Your task to perform on an android device: see sites visited before in the chrome app Image 0: 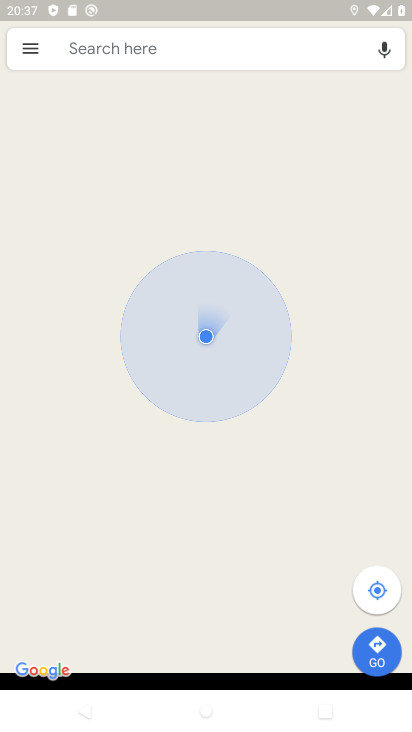
Step 0: press home button
Your task to perform on an android device: see sites visited before in the chrome app Image 1: 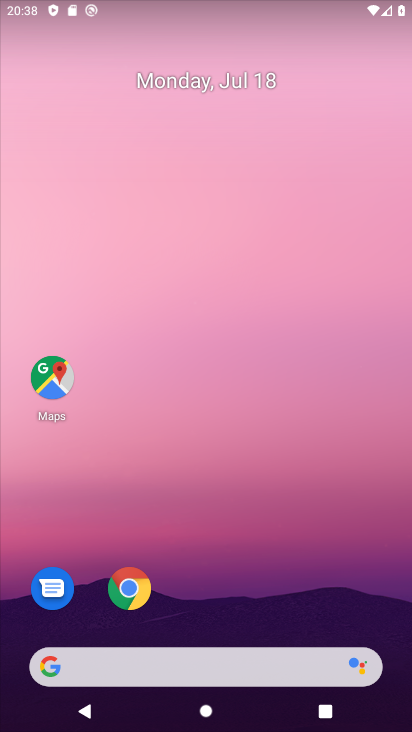
Step 1: click (134, 591)
Your task to perform on an android device: see sites visited before in the chrome app Image 2: 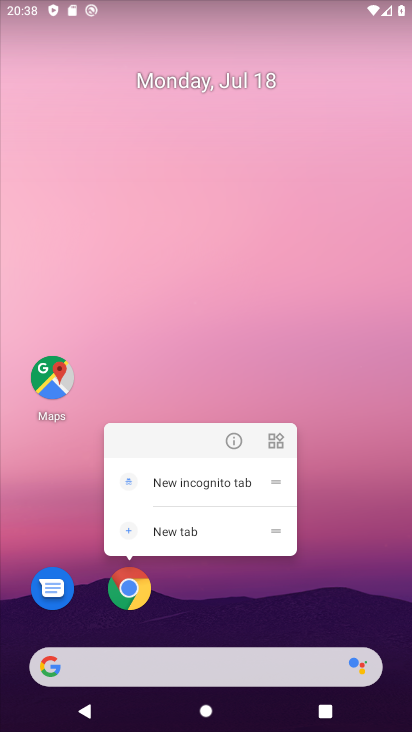
Step 2: click (128, 586)
Your task to perform on an android device: see sites visited before in the chrome app Image 3: 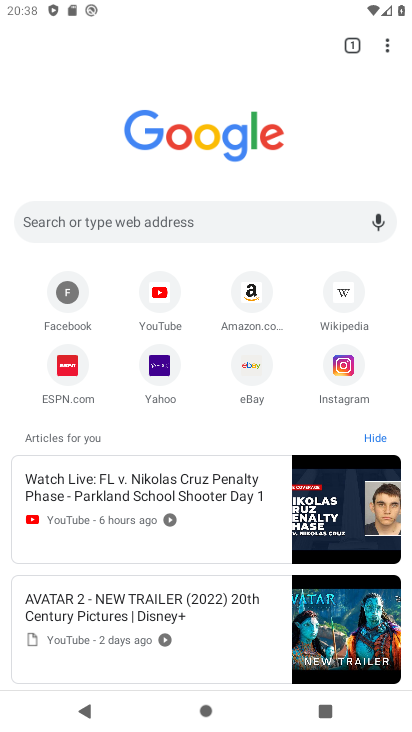
Step 3: task complete